Your task to perform on an android device: toggle javascript in the chrome app Image 0: 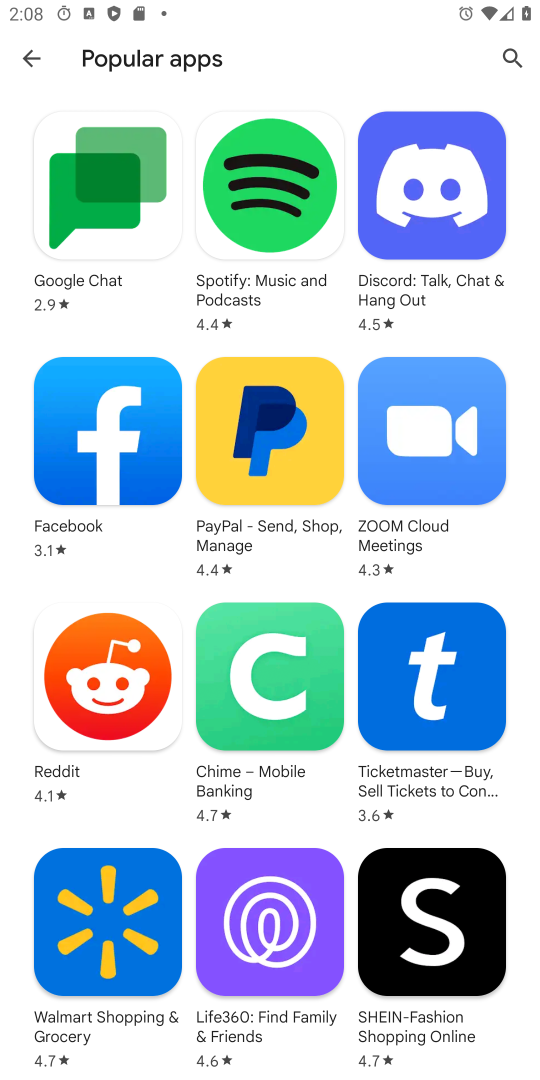
Step 0: press home button
Your task to perform on an android device: toggle javascript in the chrome app Image 1: 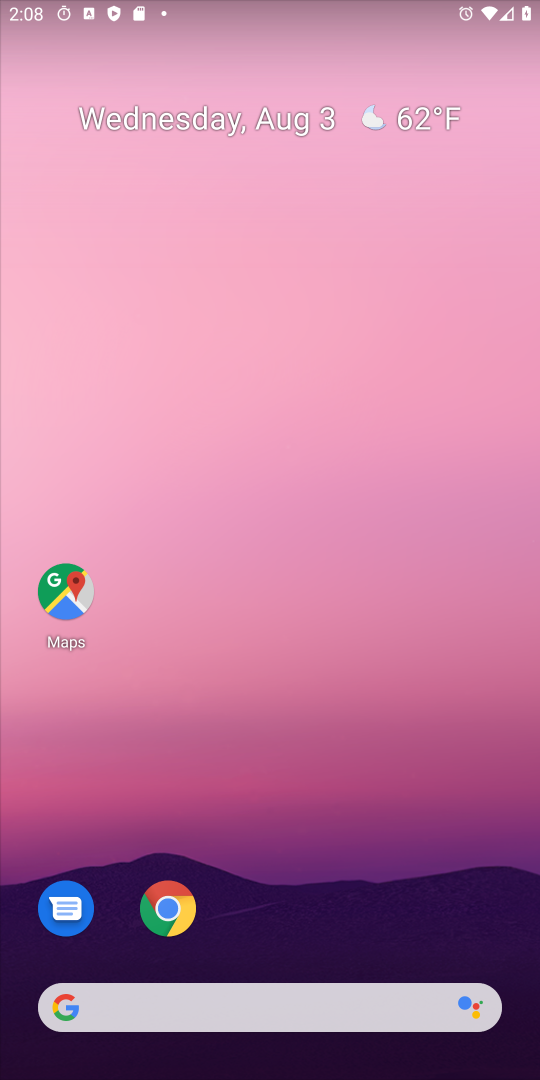
Step 1: drag from (299, 806) to (259, 63)
Your task to perform on an android device: toggle javascript in the chrome app Image 2: 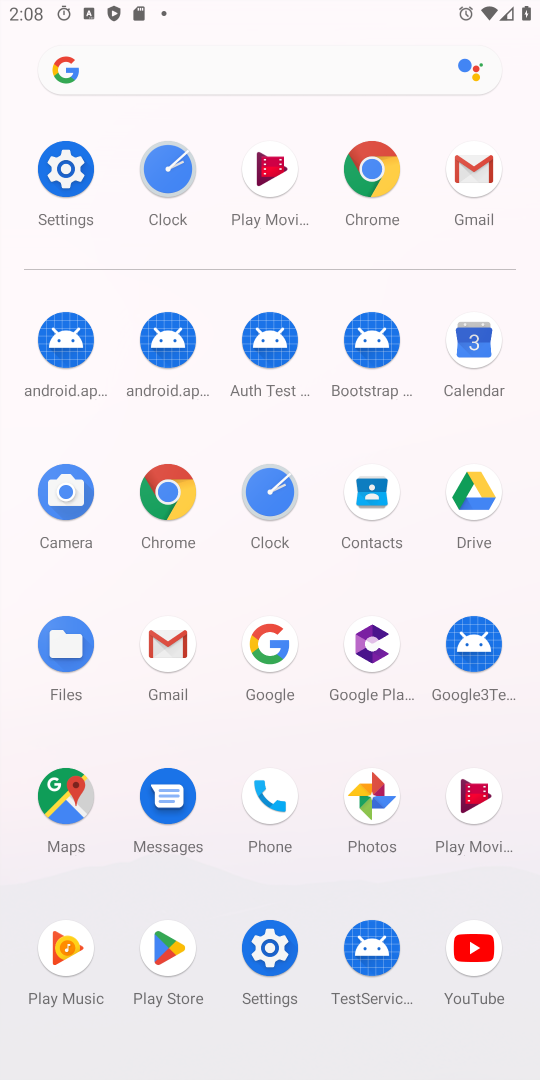
Step 2: drag from (269, 973) to (363, 720)
Your task to perform on an android device: toggle javascript in the chrome app Image 3: 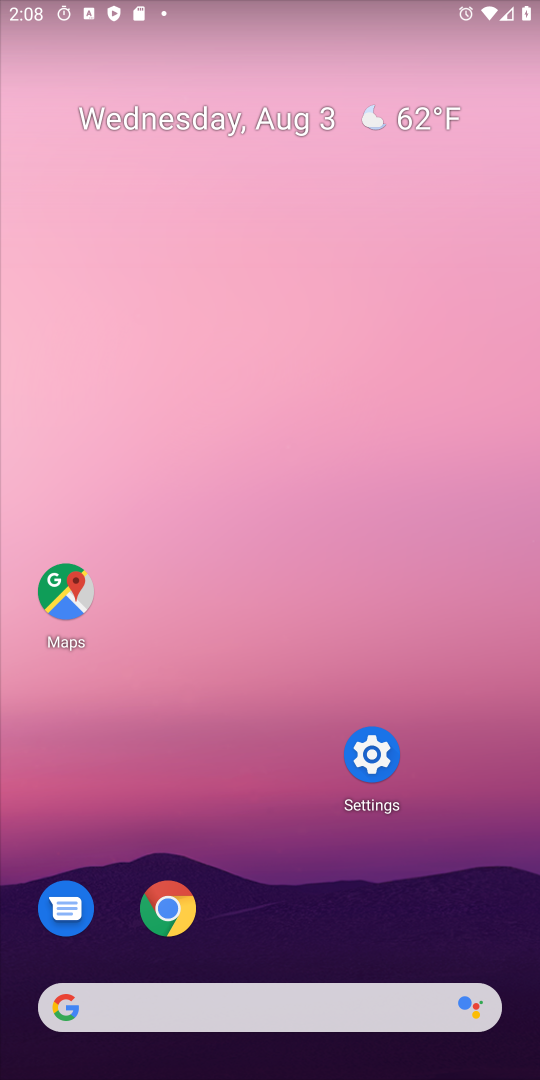
Step 3: click (173, 918)
Your task to perform on an android device: toggle javascript in the chrome app Image 4: 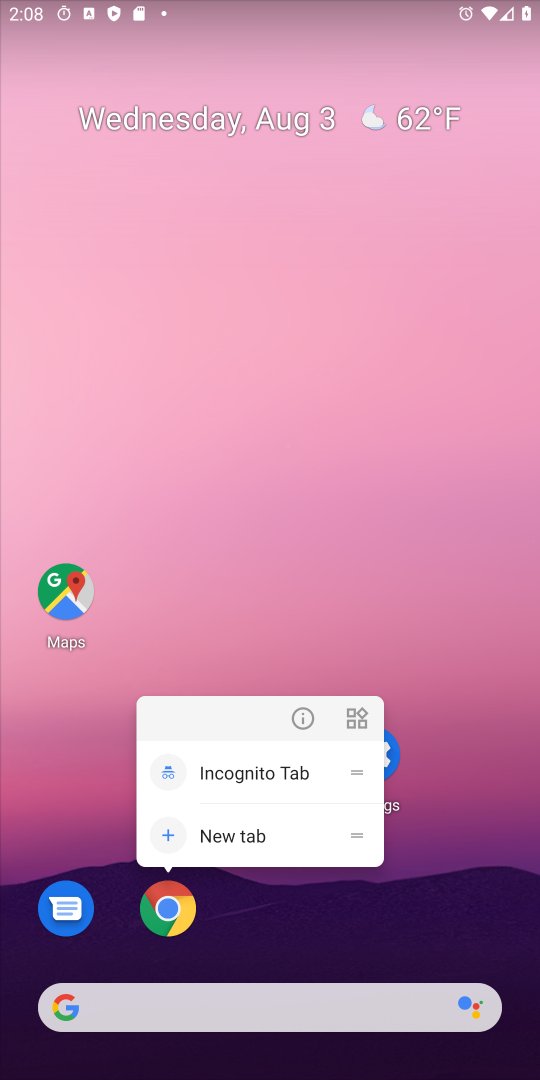
Step 4: click (185, 913)
Your task to perform on an android device: toggle javascript in the chrome app Image 5: 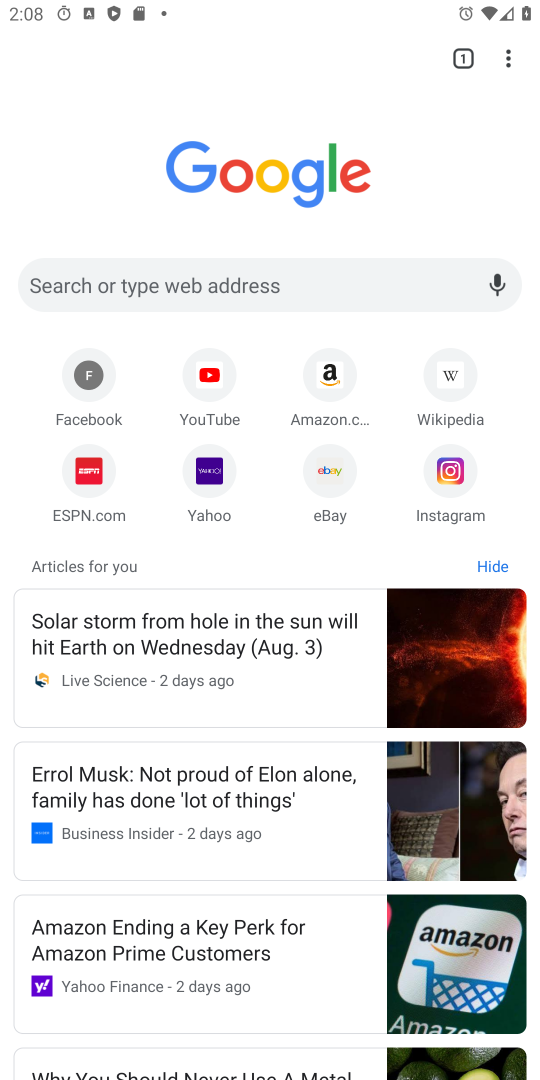
Step 5: click (508, 57)
Your task to perform on an android device: toggle javascript in the chrome app Image 6: 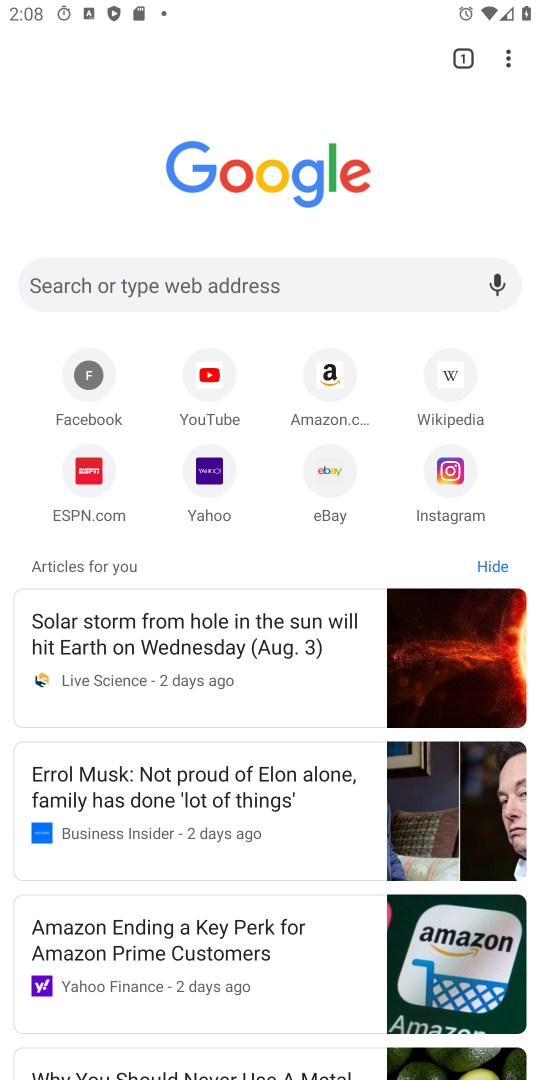
Step 6: click (510, 66)
Your task to perform on an android device: toggle javascript in the chrome app Image 7: 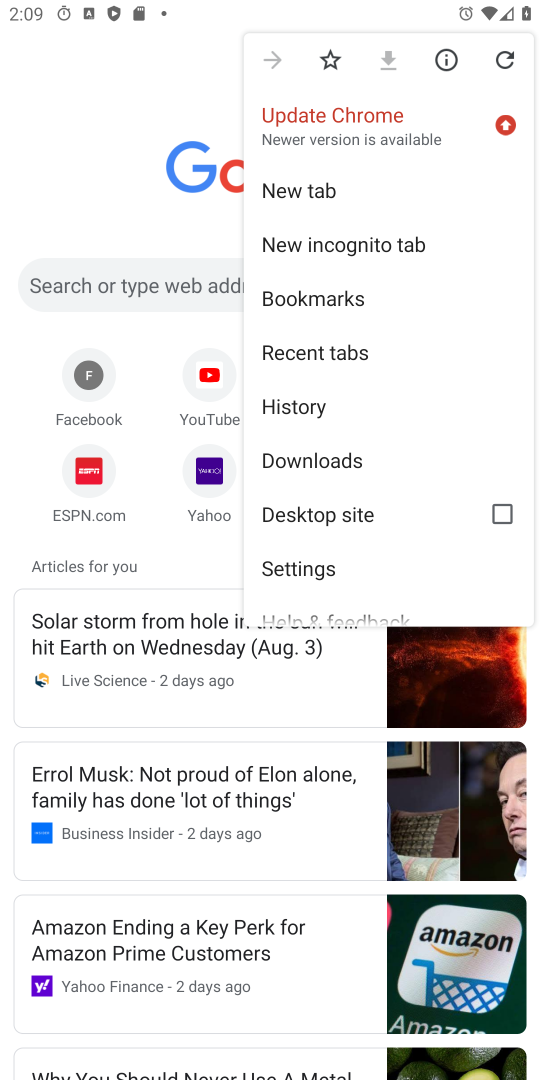
Step 7: click (333, 569)
Your task to perform on an android device: toggle javascript in the chrome app Image 8: 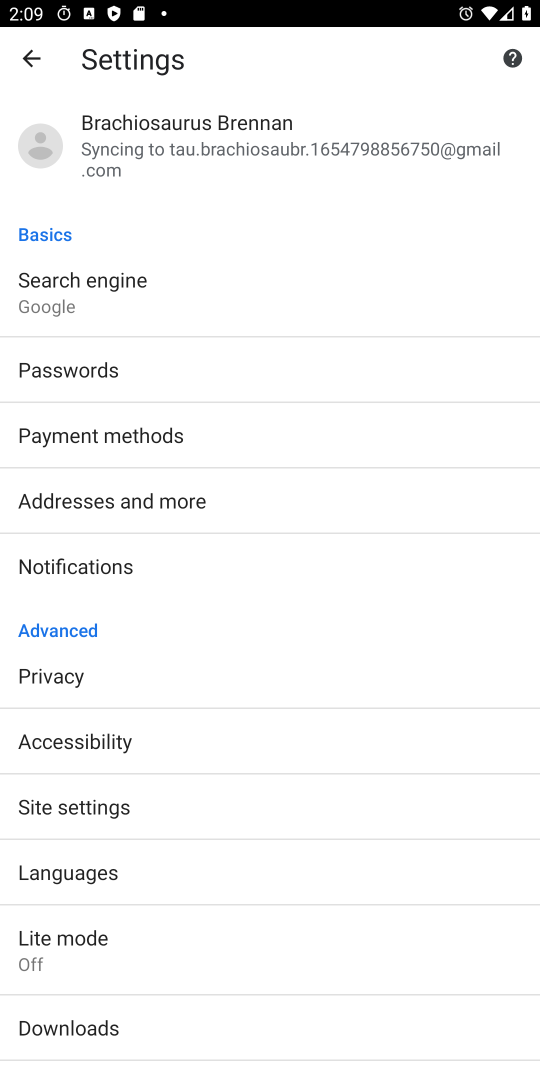
Step 8: click (180, 814)
Your task to perform on an android device: toggle javascript in the chrome app Image 9: 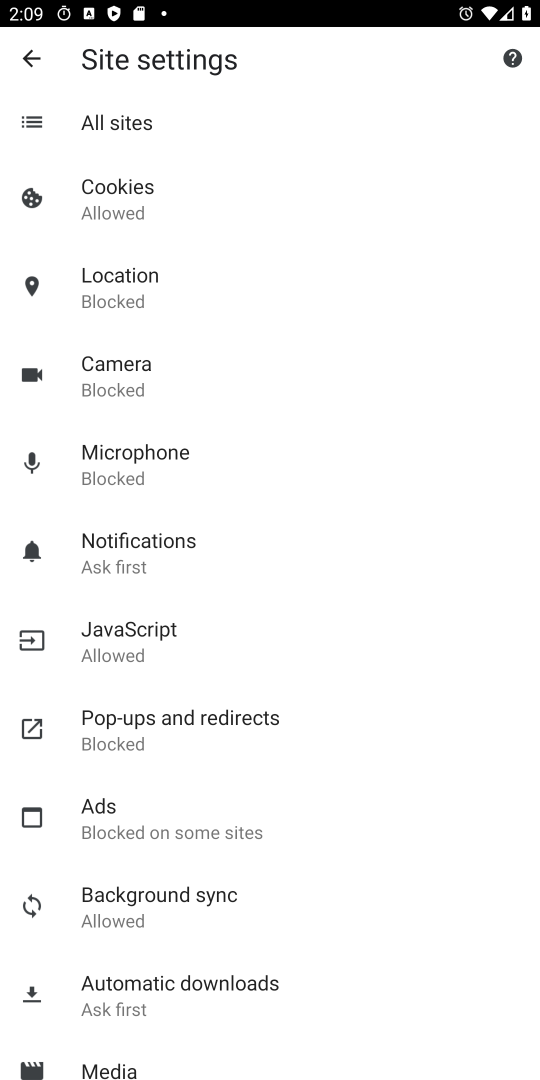
Step 9: click (225, 644)
Your task to perform on an android device: toggle javascript in the chrome app Image 10: 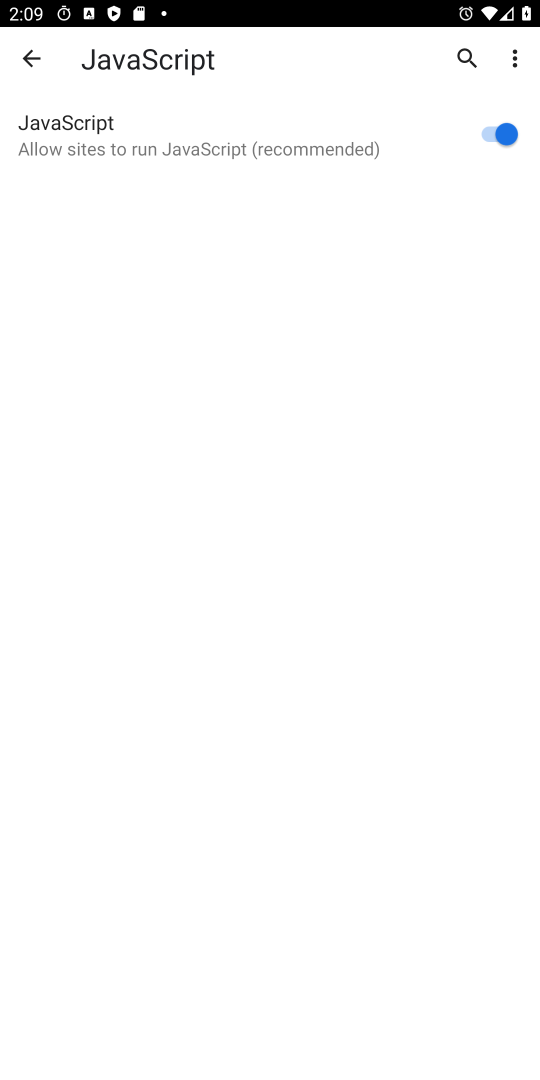
Step 10: click (492, 125)
Your task to perform on an android device: toggle javascript in the chrome app Image 11: 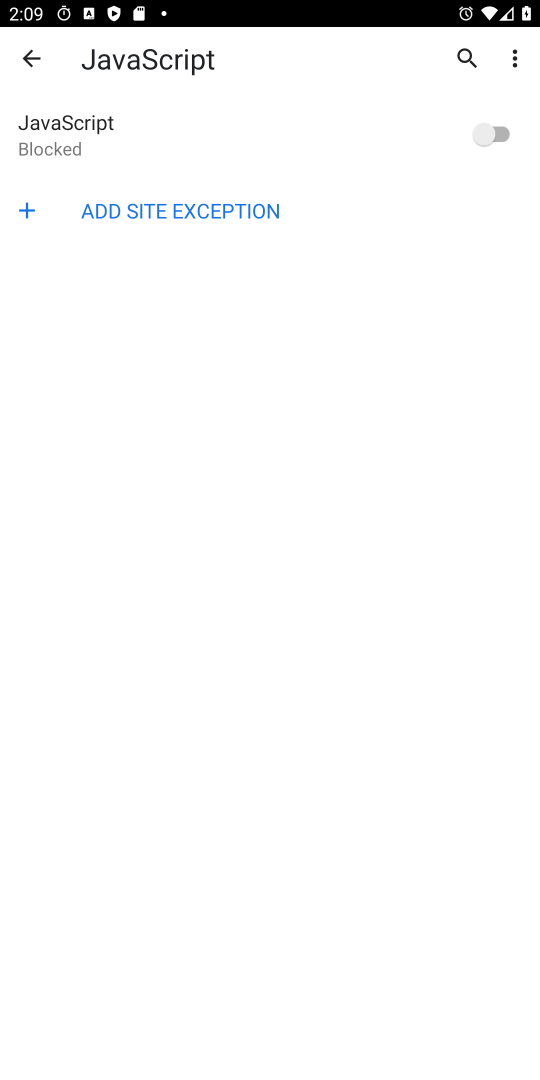
Step 11: task complete